Your task to perform on an android device: Open Chrome and go to the settings page Image 0: 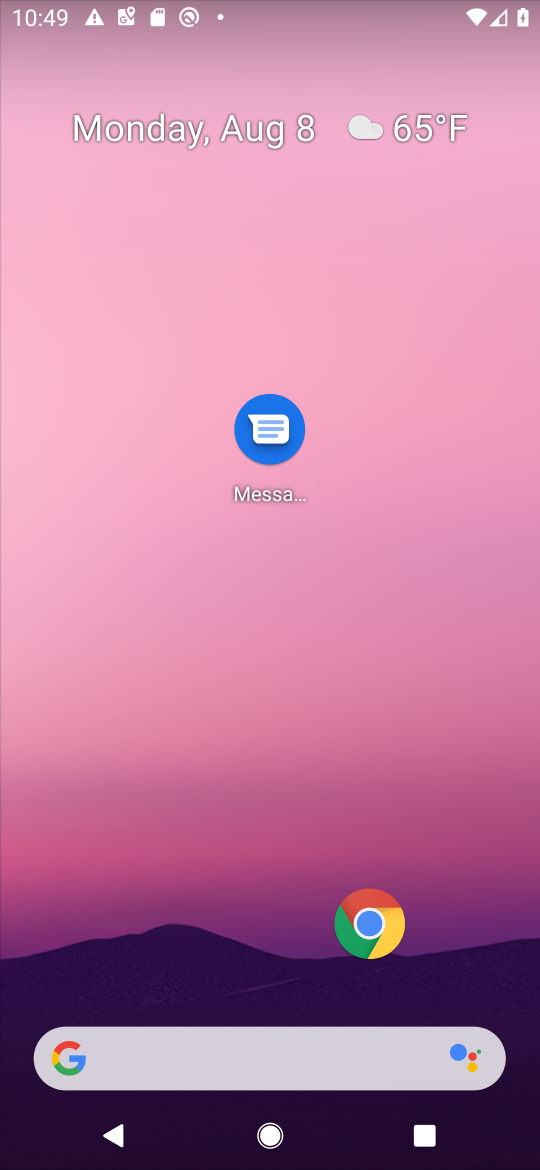
Step 0: click (382, 940)
Your task to perform on an android device: Open Chrome and go to the settings page Image 1: 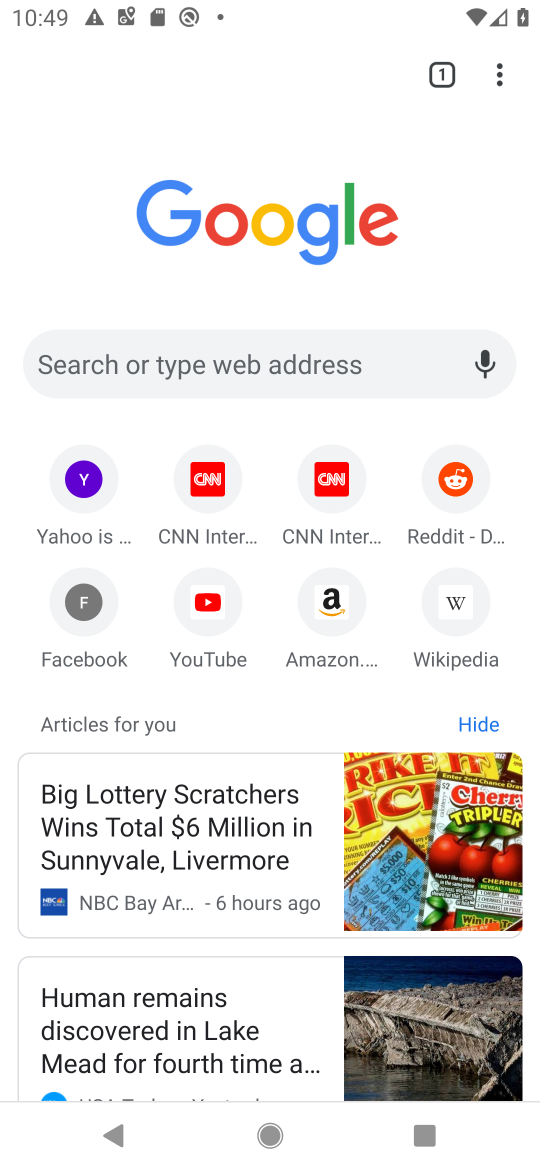
Step 1: click (507, 74)
Your task to perform on an android device: Open Chrome and go to the settings page Image 2: 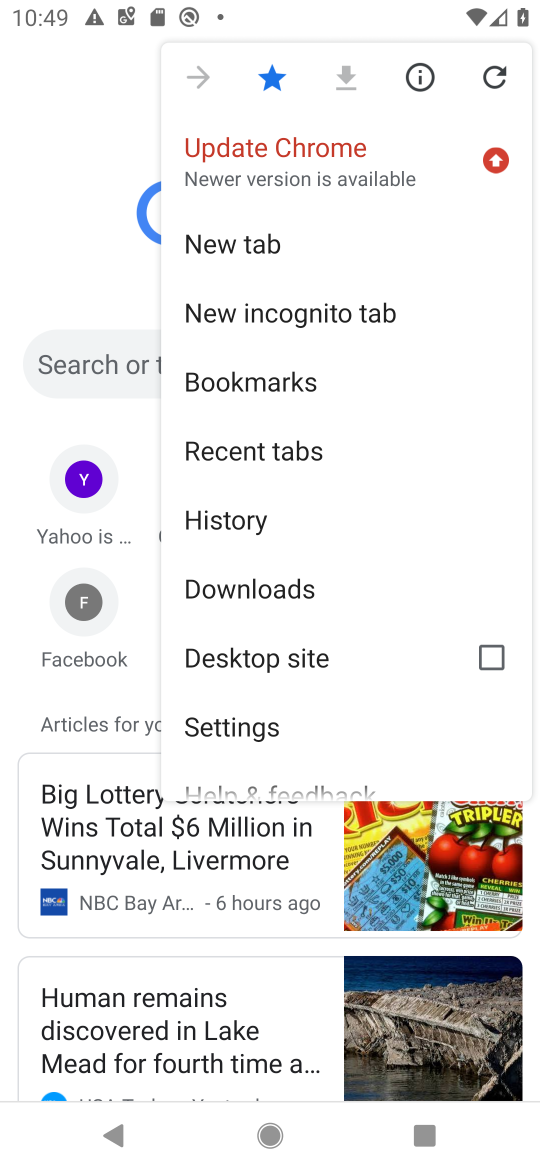
Step 2: click (244, 728)
Your task to perform on an android device: Open Chrome and go to the settings page Image 3: 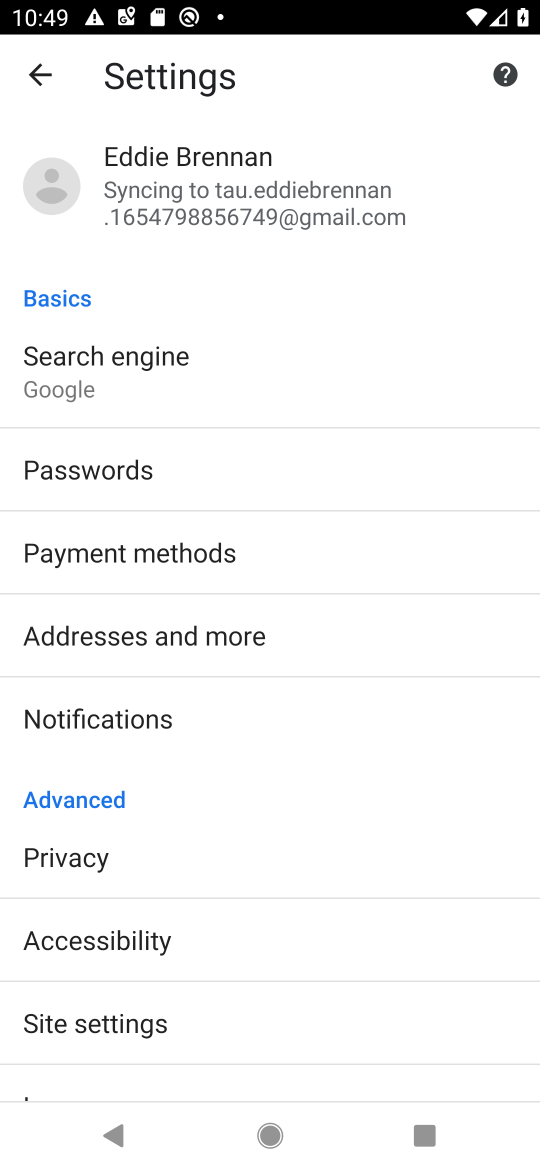
Step 3: task complete